Your task to perform on an android device: Go to Android settings Image 0: 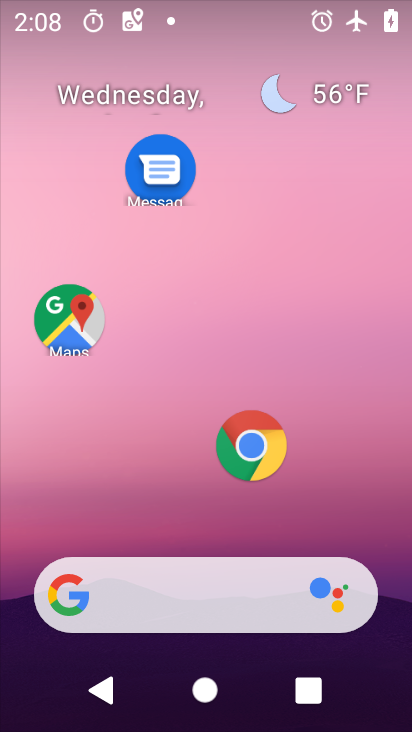
Step 0: drag from (139, 521) to (205, 137)
Your task to perform on an android device: Go to Android settings Image 1: 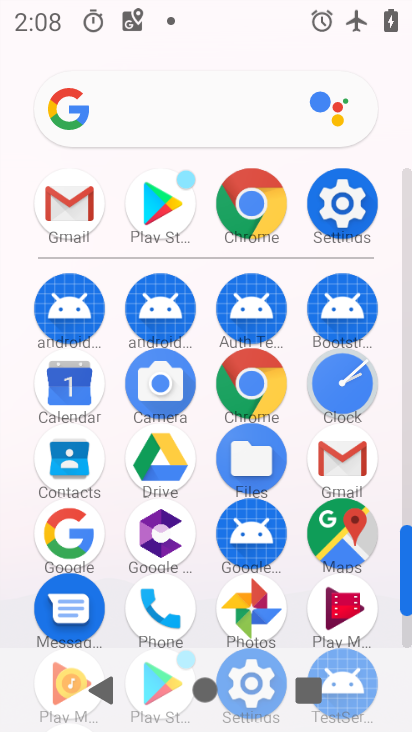
Step 1: drag from (190, 265) to (192, 96)
Your task to perform on an android device: Go to Android settings Image 2: 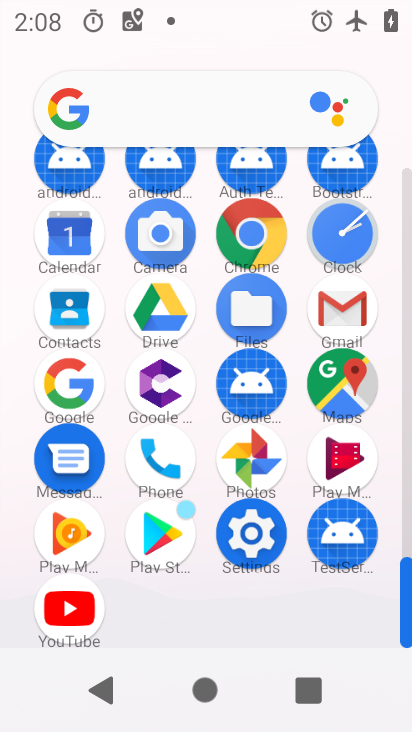
Step 2: click (265, 554)
Your task to perform on an android device: Go to Android settings Image 3: 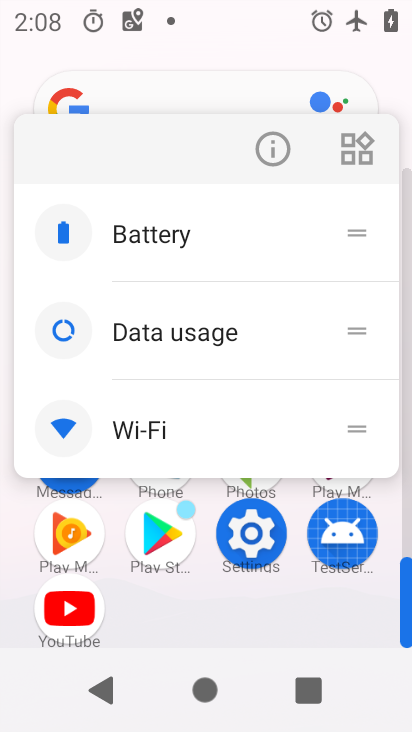
Step 3: click (247, 536)
Your task to perform on an android device: Go to Android settings Image 4: 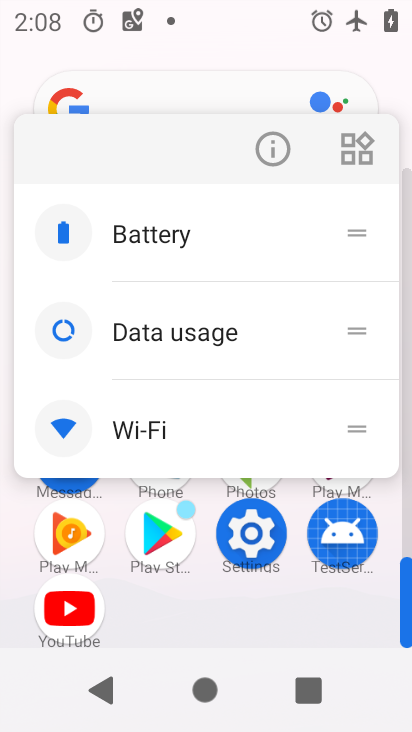
Step 4: click (248, 548)
Your task to perform on an android device: Go to Android settings Image 5: 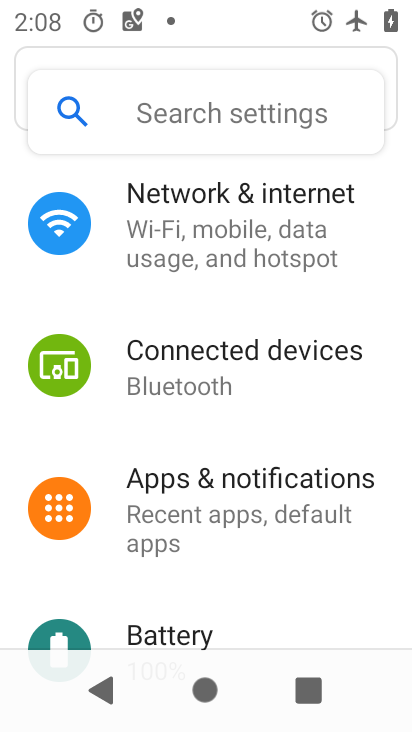
Step 5: task complete